Your task to perform on an android device: visit the assistant section in the google photos Image 0: 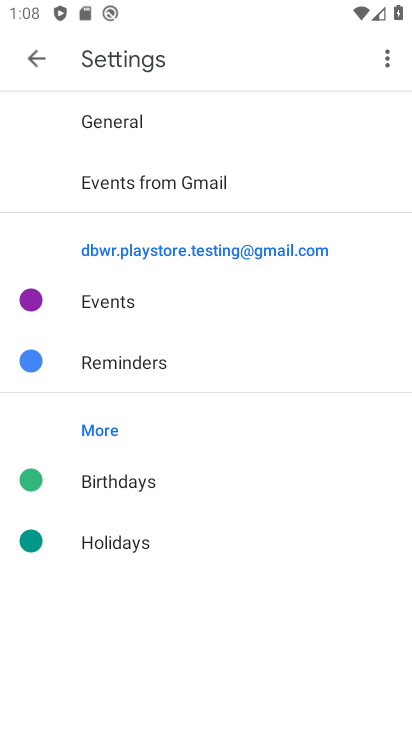
Step 0: press home button
Your task to perform on an android device: visit the assistant section in the google photos Image 1: 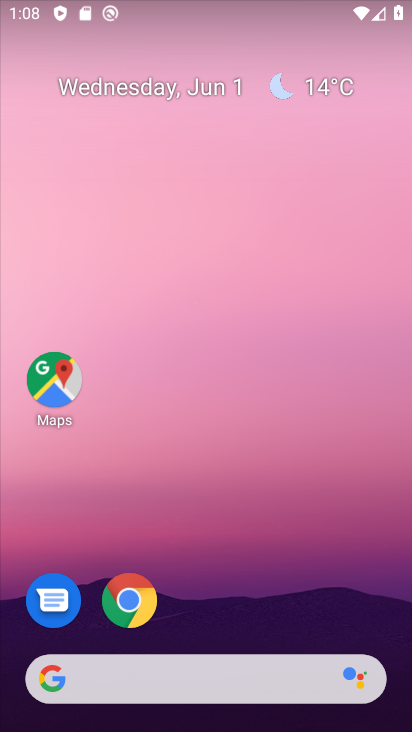
Step 1: drag from (117, 631) to (201, 109)
Your task to perform on an android device: visit the assistant section in the google photos Image 2: 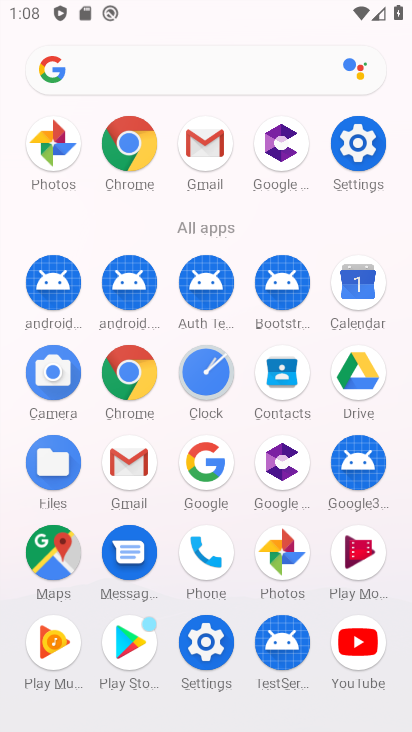
Step 2: click (278, 554)
Your task to perform on an android device: visit the assistant section in the google photos Image 3: 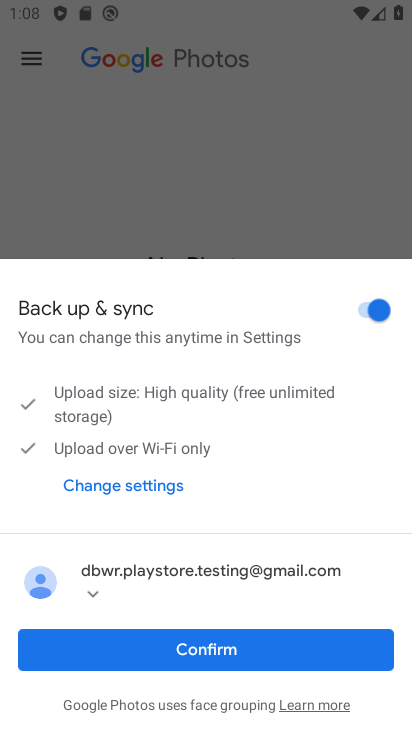
Step 3: click (245, 654)
Your task to perform on an android device: visit the assistant section in the google photos Image 4: 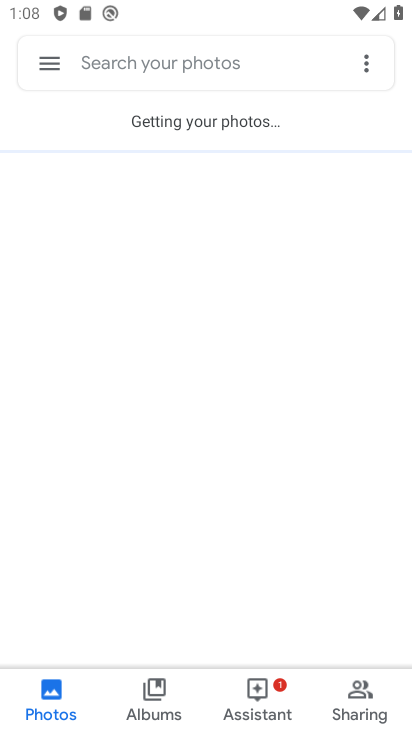
Step 4: click (256, 720)
Your task to perform on an android device: visit the assistant section in the google photos Image 5: 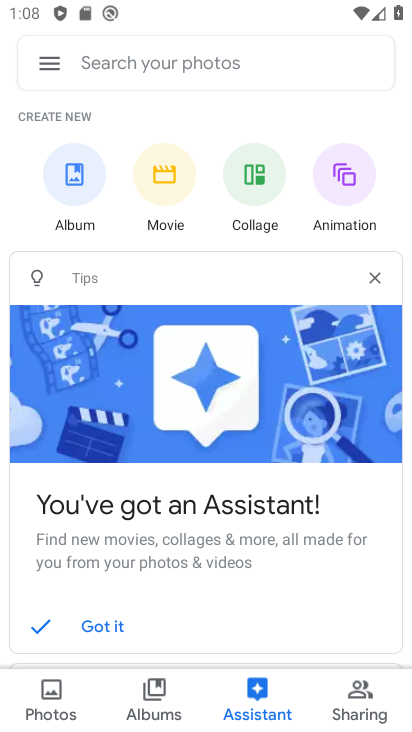
Step 5: task complete